Your task to perform on an android device: toggle priority inbox in the gmail app Image 0: 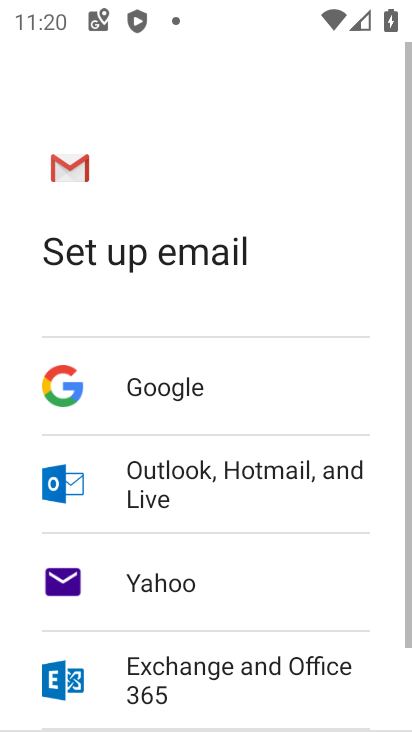
Step 0: drag from (376, 525) to (411, 0)
Your task to perform on an android device: toggle priority inbox in the gmail app Image 1: 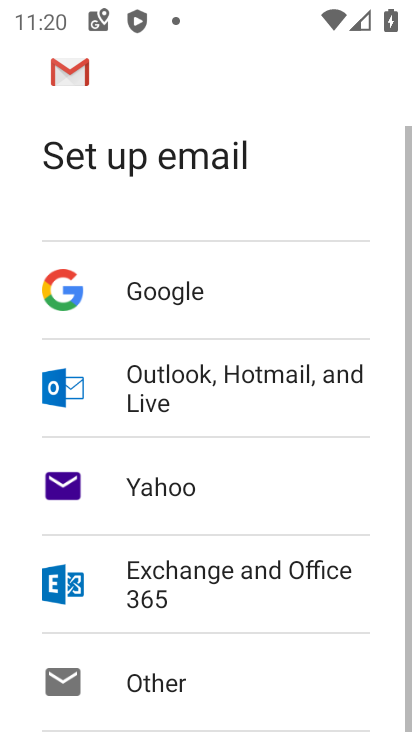
Step 1: press home button
Your task to perform on an android device: toggle priority inbox in the gmail app Image 2: 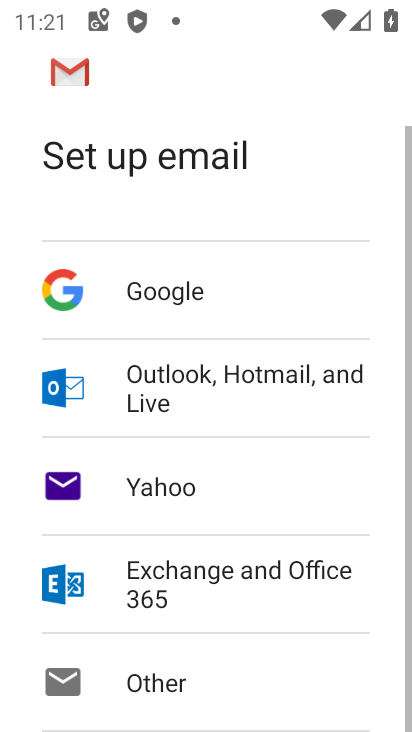
Step 2: drag from (411, 0) to (408, 563)
Your task to perform on an android device: toggle priority inbox in the gmail app Image 3: 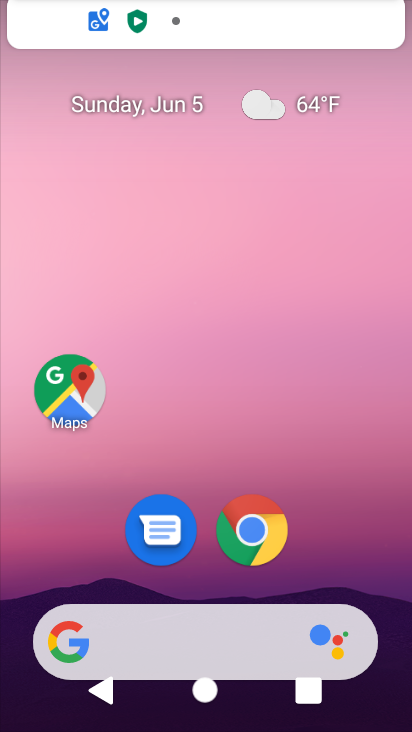
Step 3: drag from (389, 521) to (408, 24)
Your task to perform on an android device: toggle priority inbox in the gmail app Image 4: 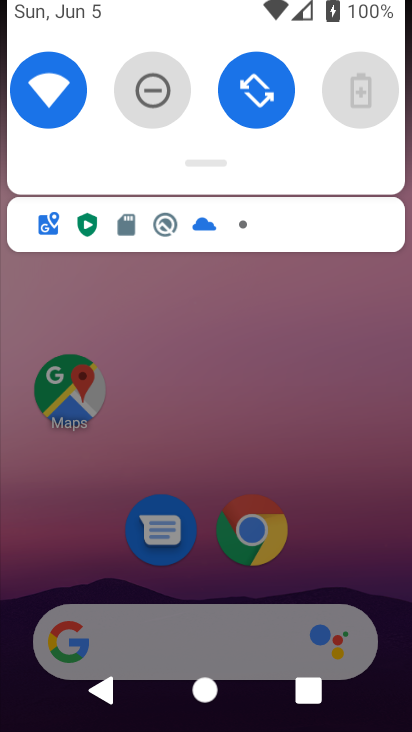
Step 4: drag from (304, 363) to (333, 2)
Your task to perform on an android device: toggle priority inbox in the gmail app Image 5: 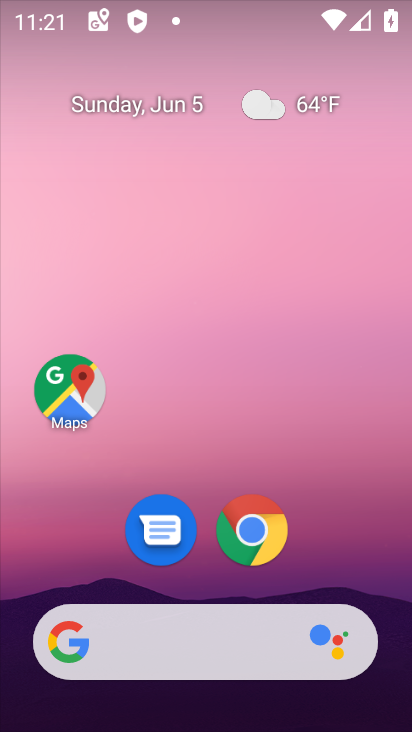
Step 5: drag from (405, 335) to (403, 115)
Your task to perform on an android device: toggle priority inbox in the gmail app Image 6: 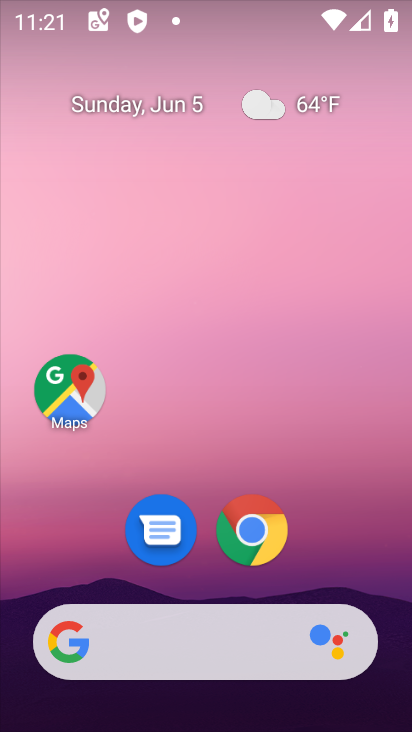
Step 6: drag from (362, 590) to (367, 46)
Your task to perform on an android device: toggle priority inbox in the gmail app Image 7: 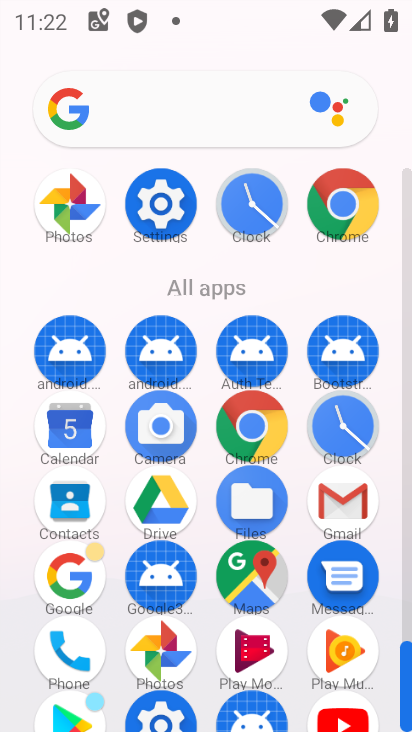
Step 7: click (351, 507)
Your task to perform on an android device: toggle priority inbox in the gmail app Image 8: 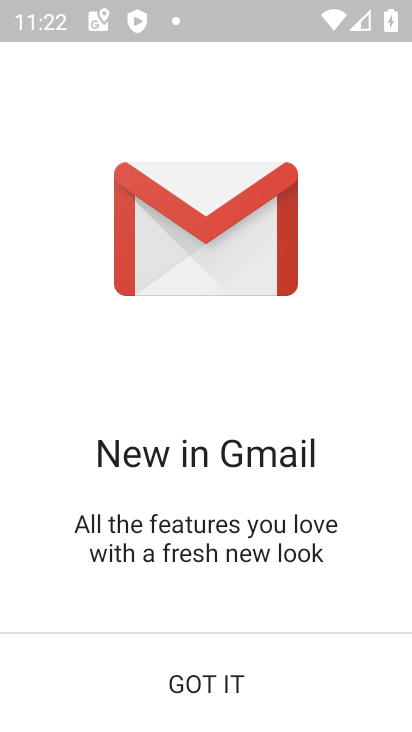
Step 8: click (200, 686)
Your task to perform on an android device: toggle priority inbox in the gmail app Image 9: 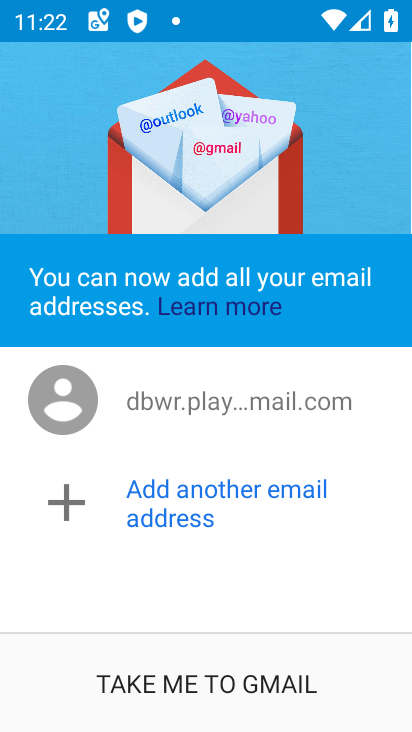
Step 9: click (201, 681)
Your task to perform on an android device: toggle priority inbox in the gmail app Image 10: 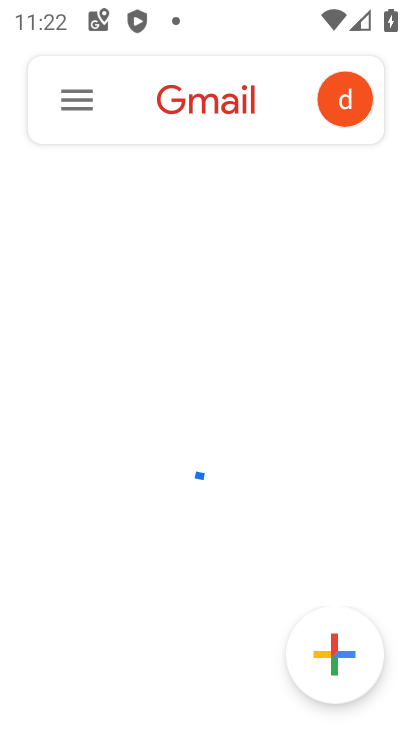
Step 10: click (73, 102)
Your task to perform on an android device: toggle priority inbox in the gmail app Image 11: 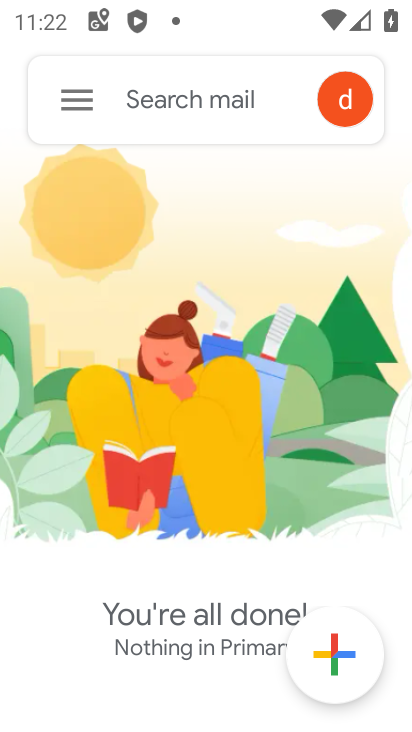
Step 11: click (85, 107)
Your task to perform on an android device: toggle priority inbox in the gmail app Image 12: 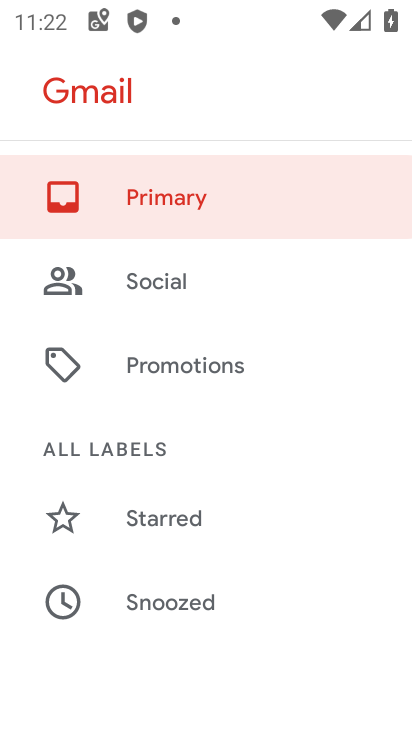
Step 12: drag from (152, 653) to (288, 148)
Your task to perform on an android device: toggle priority inbox in the gmail app Image 13: 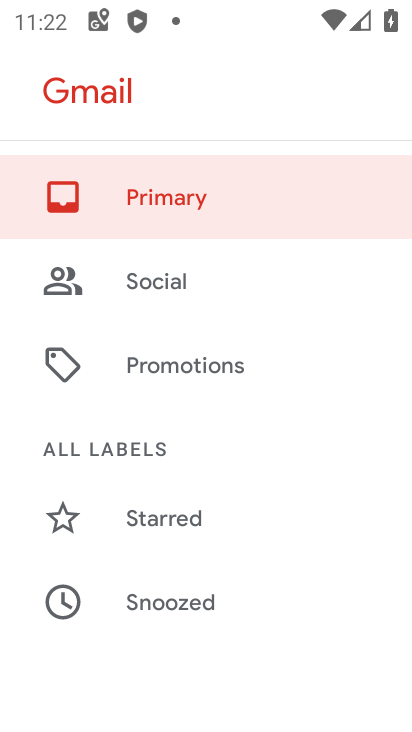
Step 13: drag from (217, 502) to (241, 99)
Your task to perform on an android device: toggle priority inbox in the gmail app Image 14: 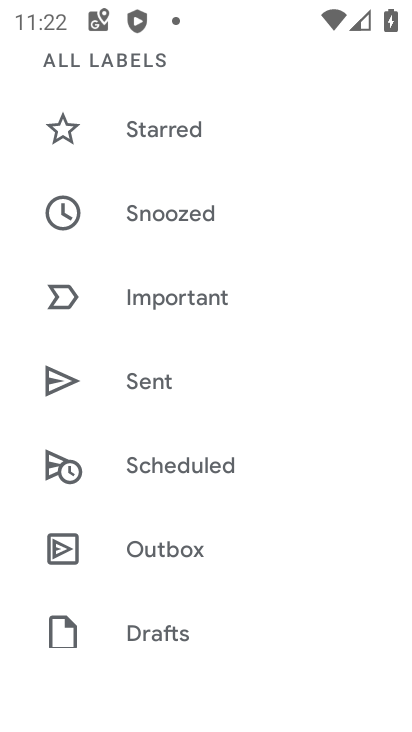
Step 14: drag from (212, 542) to (229, 18)
Your task to perform on an android device: toggle priority inbox in the gmail app Image 15: 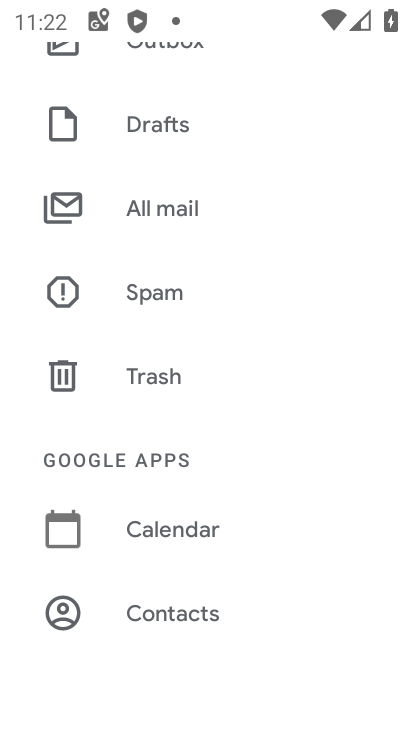
Step 15: drag from (252, 537) to (306, 0)
Your task to perform on an android device: toggle priority inbox in the gmail app Image 16: 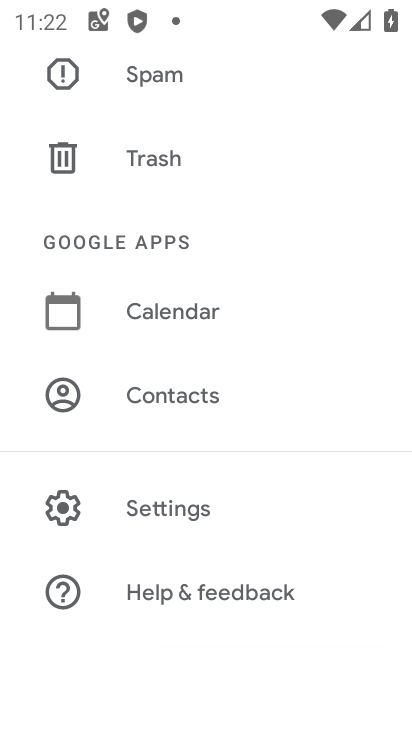
Step 16: click (181, 508)
Your task to perform on an android device: toggle priority inbox in the gmail app Image 17: 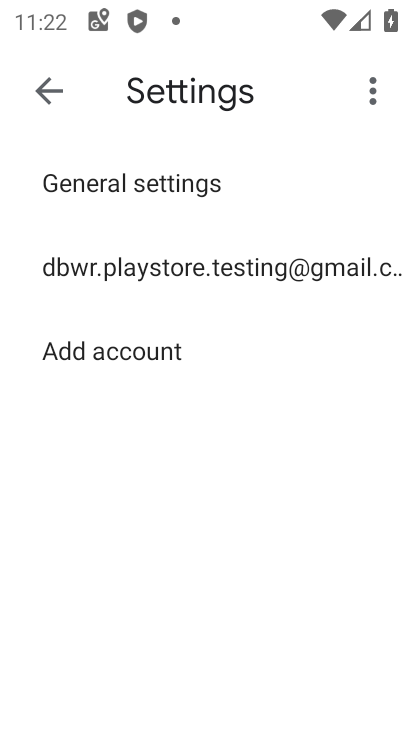
Step 17: click (193, 271)
Your task to perform on an android device: toggle priority inbox in the gmail app Image 18: 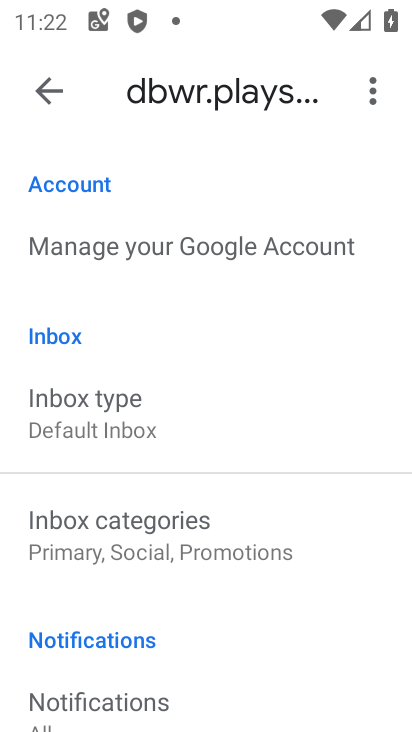
Step 18: click (121, 553)
Your task to perform on an android device: toggle priority inbox in the gmail app Image 19: 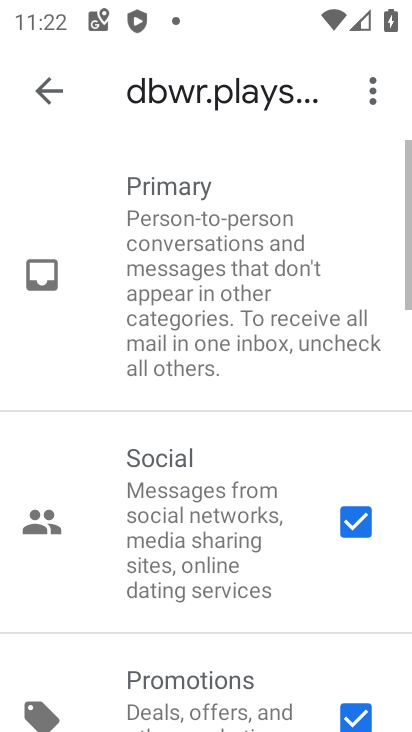
Step 19: click (39, 81)
Your task to perform on an android device: toggle priority inbox in the gmail app Image 20: 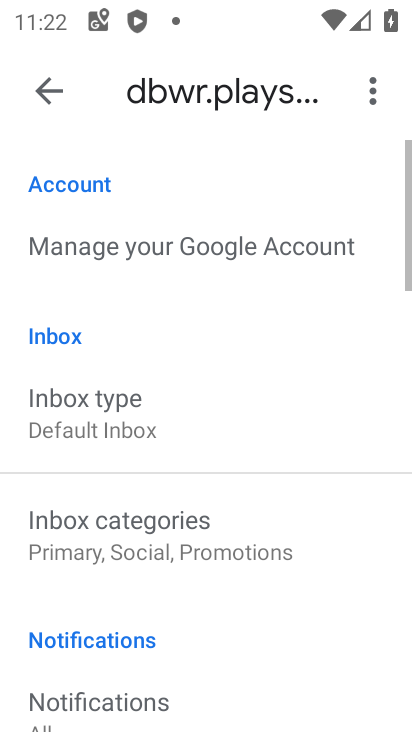
Step 20: click (64, 404)
Your task to perform on an android device: toggle priority inbox in the gmail app Image 21: 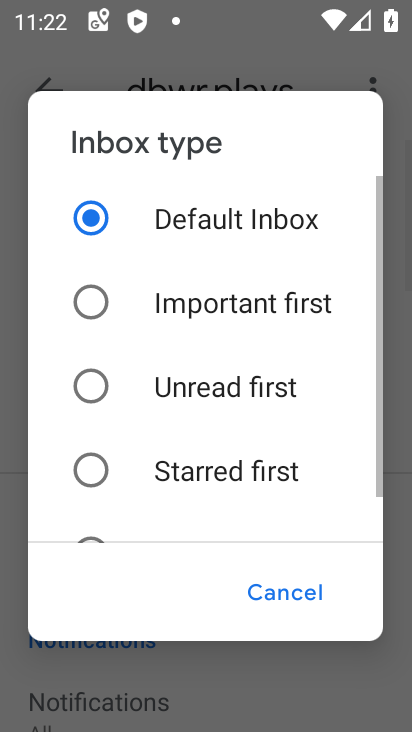
Step 21: drag from (184, 457) to (273, 110)
Your task to perform on an android device: toggle priority inbox in the gmail app Image 22: 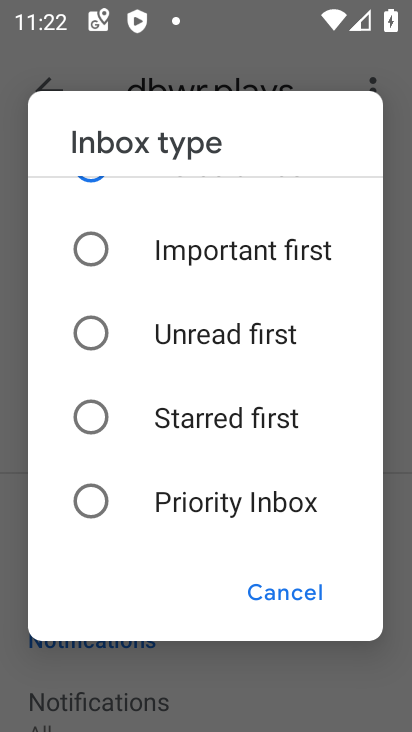
Step 22: click (161, 501)
Your task to perform on an android device: toggle priority inbox in the gmail app Image 23: 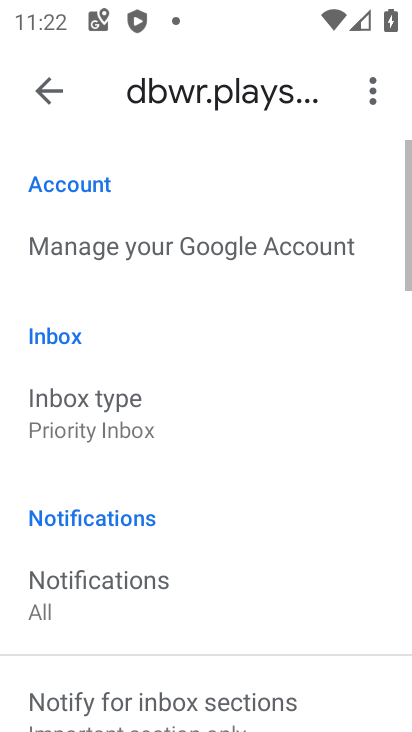
Step 23: task complete